Your task to perform on an android device: Open Yahoo.com Image 0: 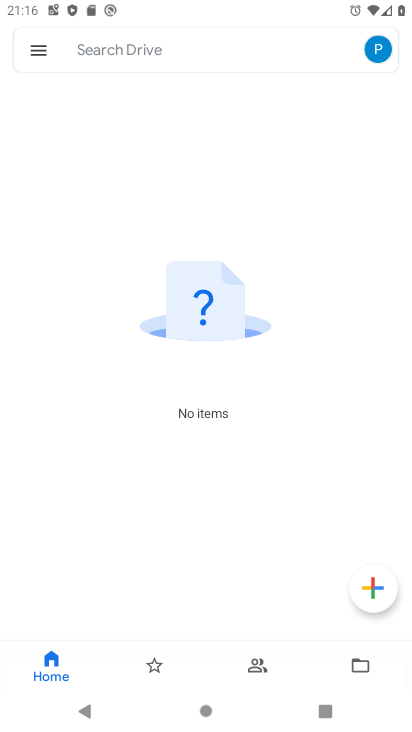
Step 0: press home button
Your task to perform on an android device: Open Yahoo.com Image 1: 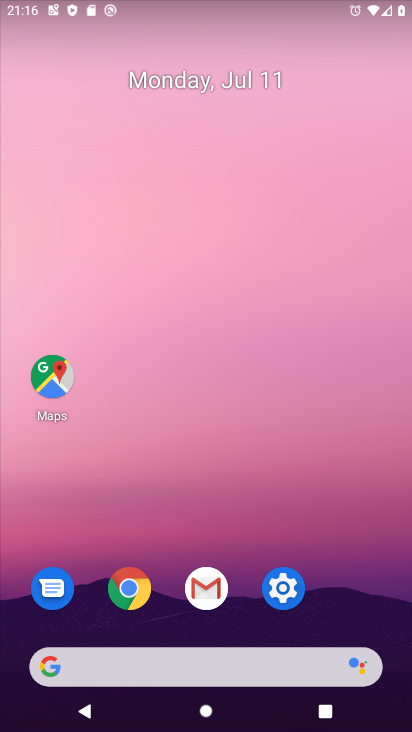
Step 1: click (145, 592)
Your task to perform on an android device: Open Yahoo.com Image 2: 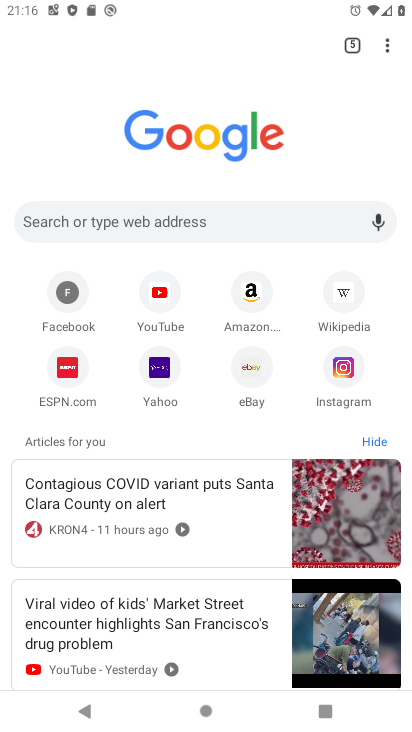
Step 2: click (169, 367)
Your task to perform on an android device: Open Yahoo.com Image 3: 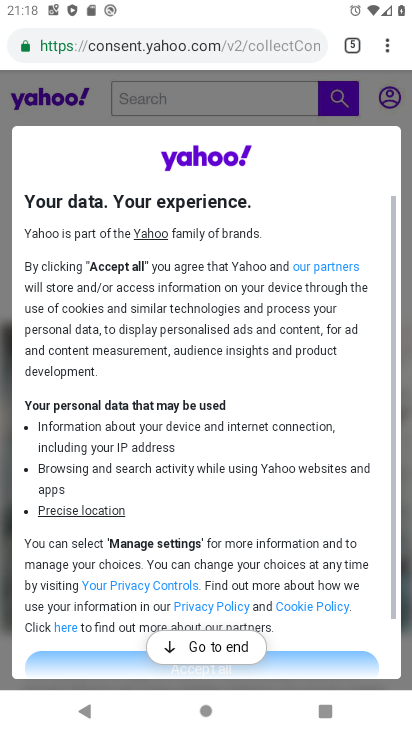
Step 3: drag from (235, 507) to (184, 213)
Your task to perform on an android device: Open Yahoo.com Image 4: 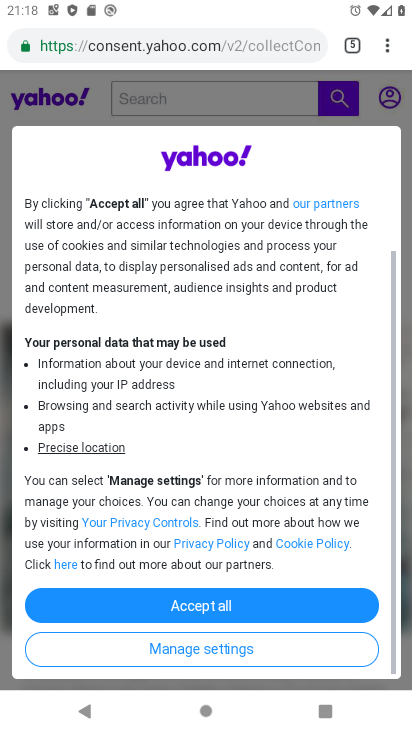
Step 4: click (189, 609)
Your task to perform on an android device: Open Yahoo.com Image 5: 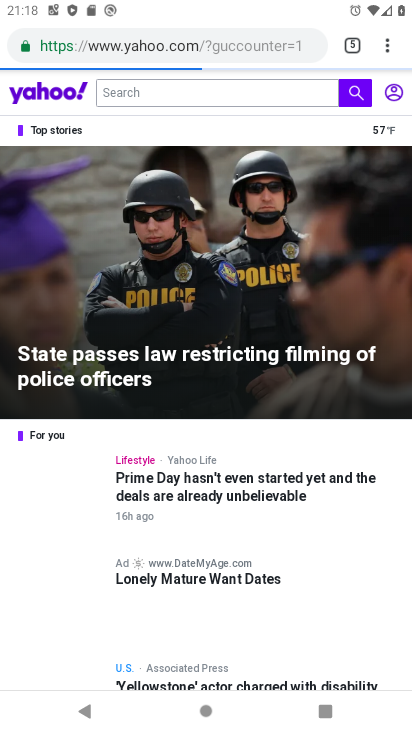
Step 5: task complete